Your task to perform on an android device: Open internet settings Image 0: 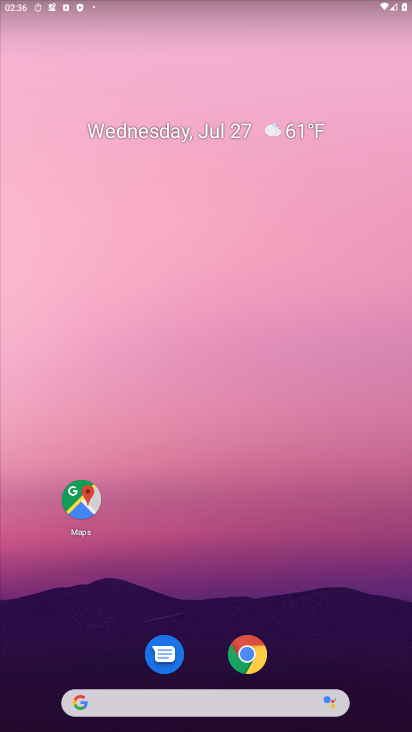
Step 0: drag from (214, 627) to (328, 0)
Your task to perform on an android device: Open internet settings Image 1: 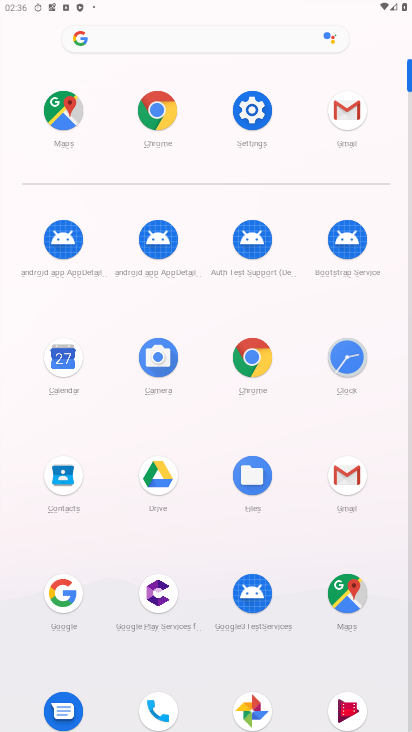
Step 1: click (235, 112)
Your task to perform on an android device: Open internet settings Image 2: 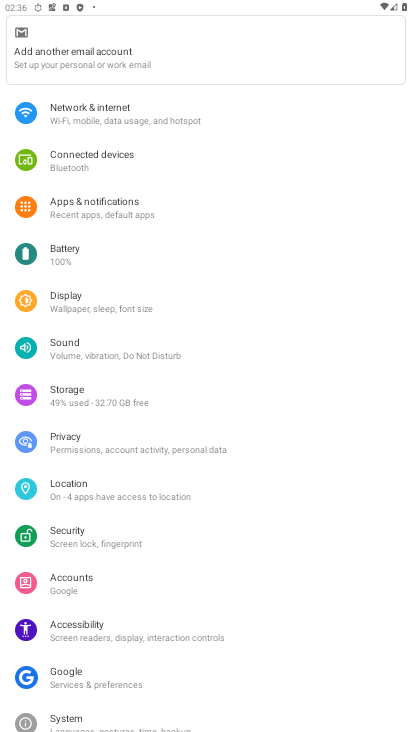
Step 2: click (209, 110)
Your task to perform on an android device: Open internet settings Image 3: 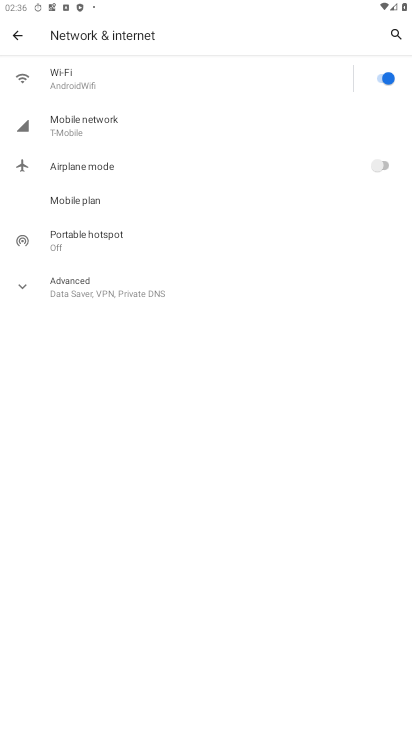
Step 3: click (102, 129)
Your task to perform on an android device: Open internet settings Image 4: 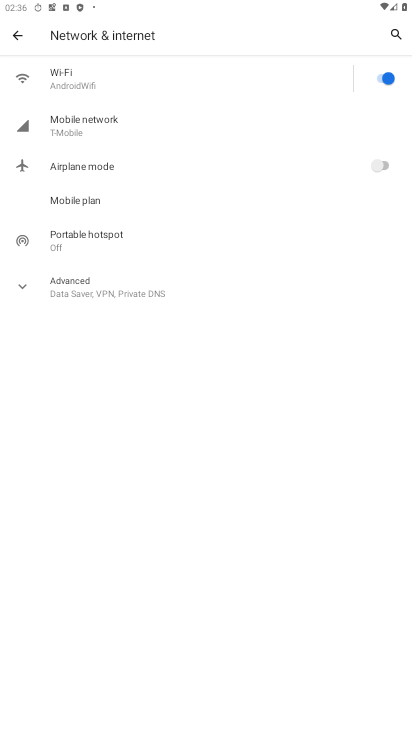
Step 4: task complete